Your task to perform on an android device: add a label to a message in the gmail app Image 0: 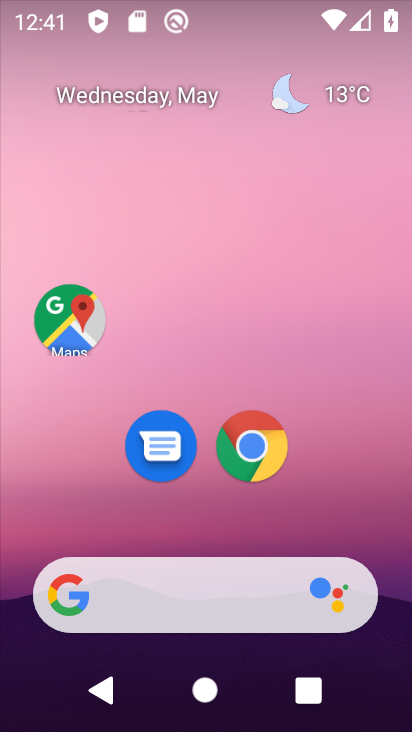
Step 0: drag from (104, 538) to (157, 183)
Your task to perform on an android device: add a label to a message in the gmail app Image 1: 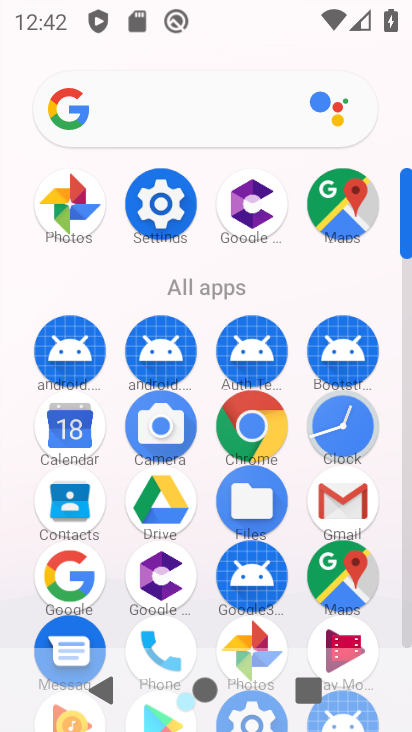
Step 1: click (332, 503)
Your task to perform on an android device: add a label to a message in the gmail app Image 2: 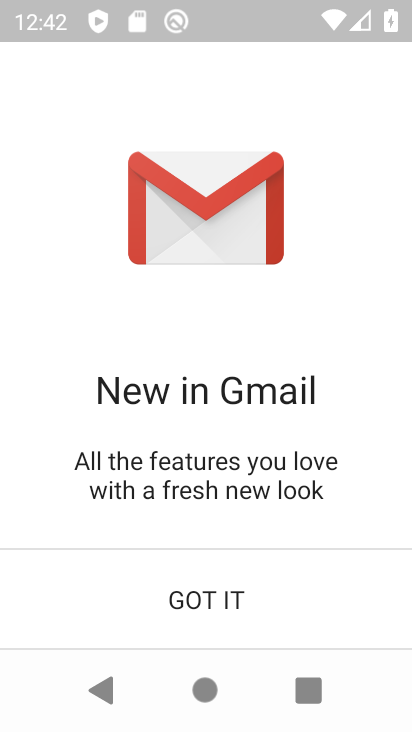
Step 2: click (237, 598)
Your task to perform on an android device: add a label to a message in the gmail app Image 3: 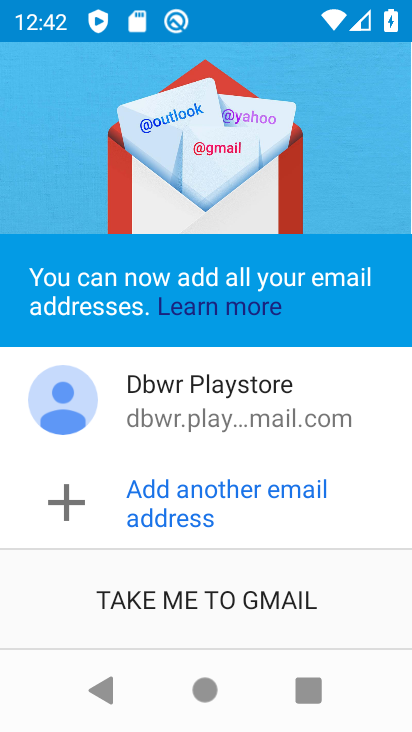
Step 3: click (240, 598)
Your task to perform on an android device: add a label to a message in the gmail app Image 4: 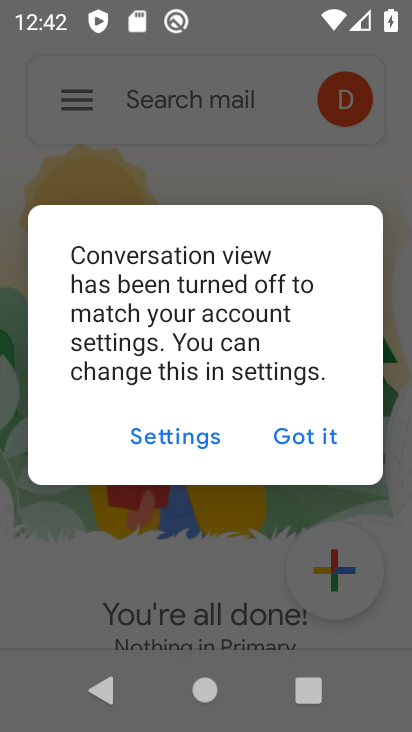
Step 4: click (323, 455)
Your task to perform on an android device: add a label to a message in the gmail app Image 5: 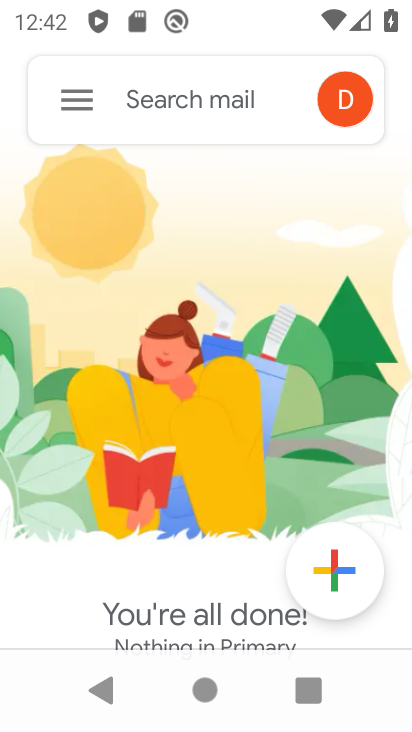
Step 5: click (106, 113)
Your task to perform on an android device: add a label to a message in the gmail app Image 6: 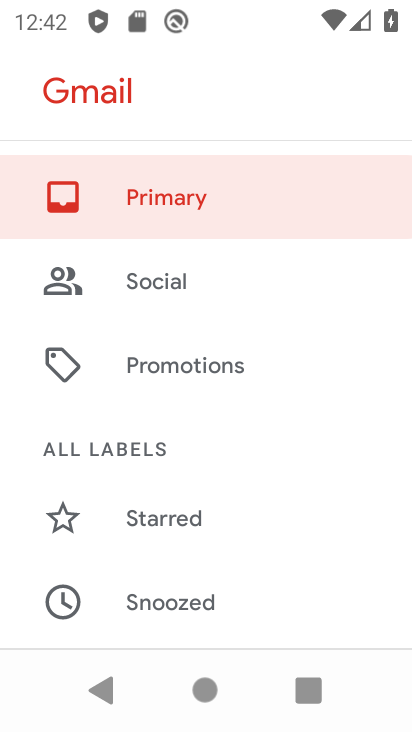
Step 6: drag from (153, 589) to (293, 182)
Your task to perform on an android device: add a label to a message in the gmail app Image 7: 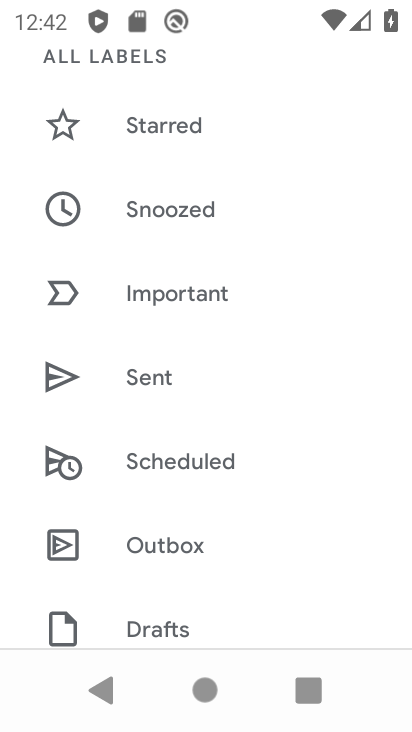
Step 7: drag from (153, 559) to (240, 276)
Your task to perform on an android device: add a label to a message in the gmail app Image 8: 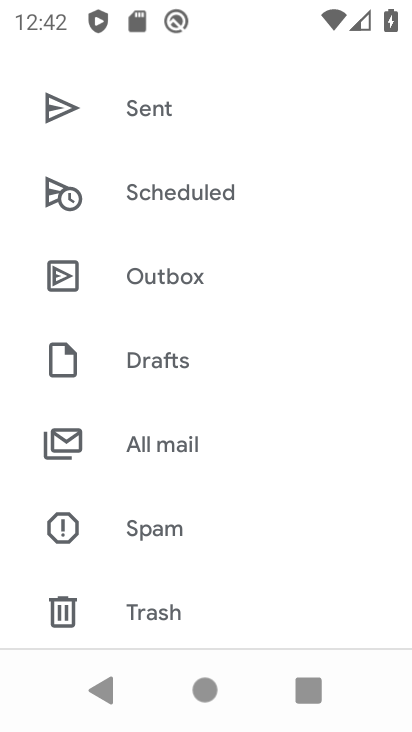
Step 8: click (232, 464)
Your task to perform on an android device: add a label to a message in the gmail app Image 9: 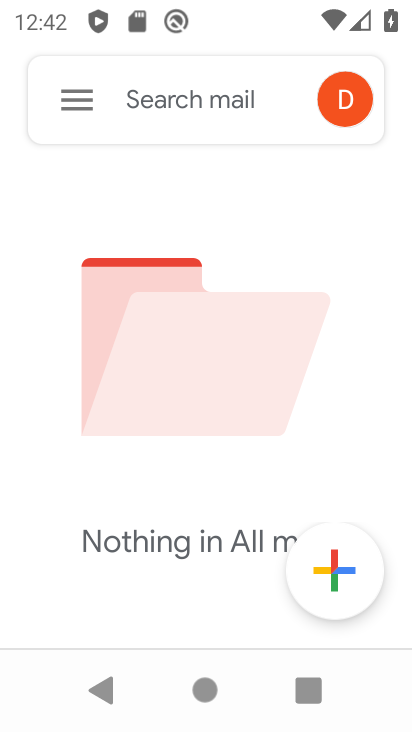
Step 9: task complete